Your task to perform on an android device: turn on showing notifications on the lock screen Image 0: 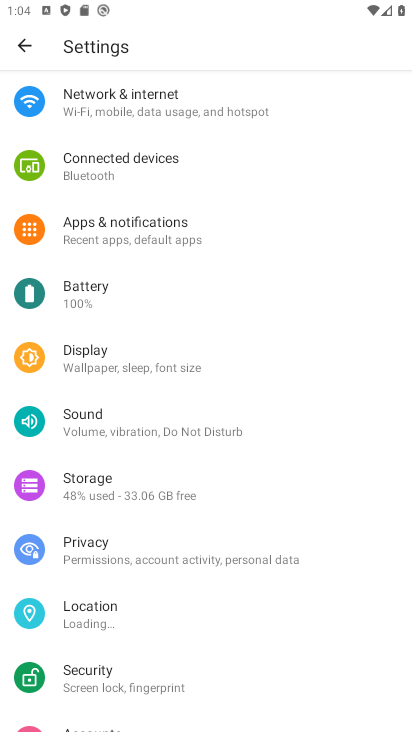
Step 0: press home button
Your task to perform on an android device: turn on showing notifications on the lock screen Image 1: 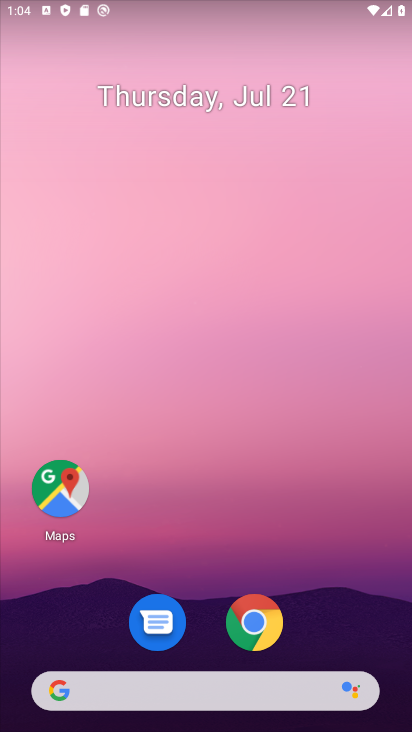
Step 1: drag from (298, 694) to (261, 181)
Your task to perform on an android device: turn on showing notifications on the lock screen Image 2: 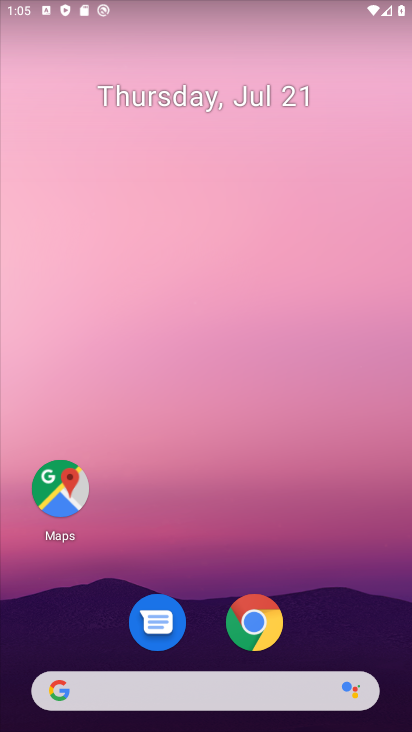
Step 2: drag from (217, 686) to (164, 137)
Your task to perform on an android device: turn on showing notifications on the lock screen Image 3: 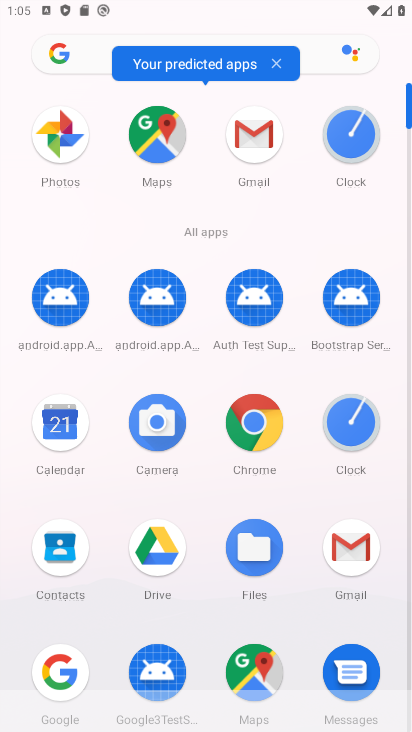
Step 3: drag from (203, 639) to (194, 435)
Your task to perform on an android device: turn on showing notifications on the lock screen Image 4: 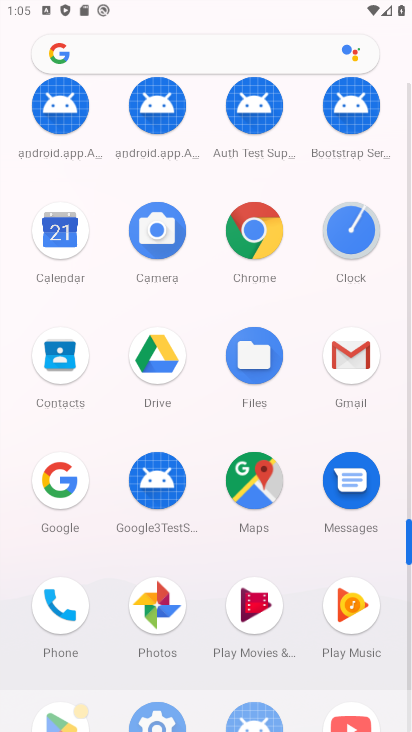
Step 4: drag from (204, 537) to (209, 438)
Your task to perform on an android device: turn on showing notifications on the lock screen Image 5: 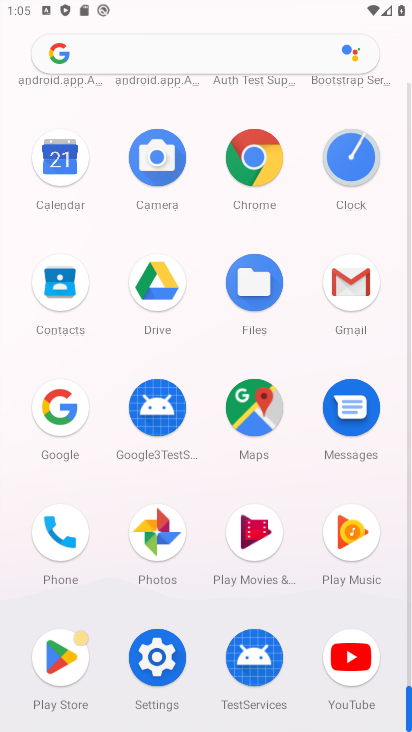
Step 5: click (160, 650)
Your task to perform on an android device: turn on showing notifications on the lock screen Image 6: 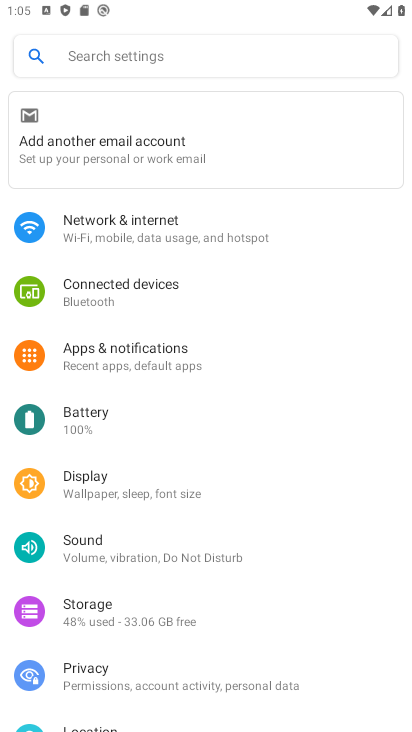
Step 6: click (152, 49)
Your task to perform on an android device: turn on showing notifications on the lock screen Image 7: 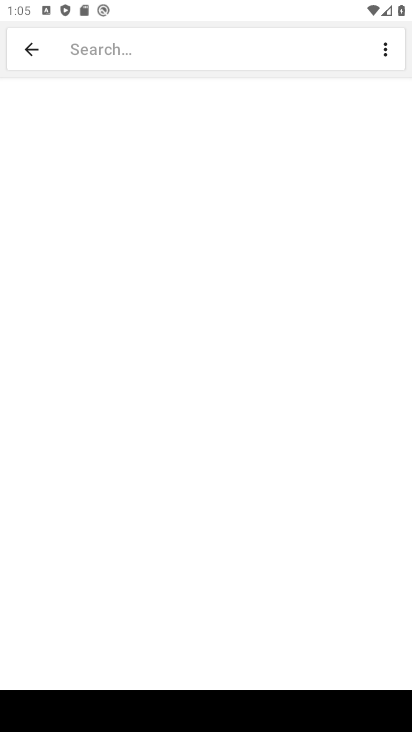
Step 7: drag from (366, 705) to (357, 630)
Your task to perform on an android device: turn on showing notifications on the lock screen Image 8: 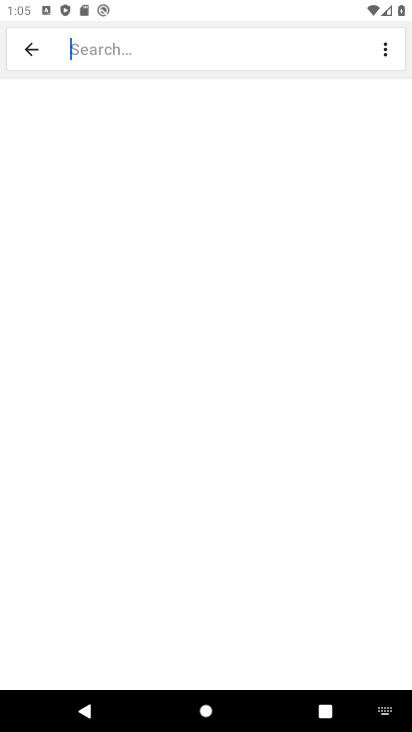
Step 8: click (379, 718)
Your task to perform on an android device: turn on showing notifications on the lock screen Image 9: 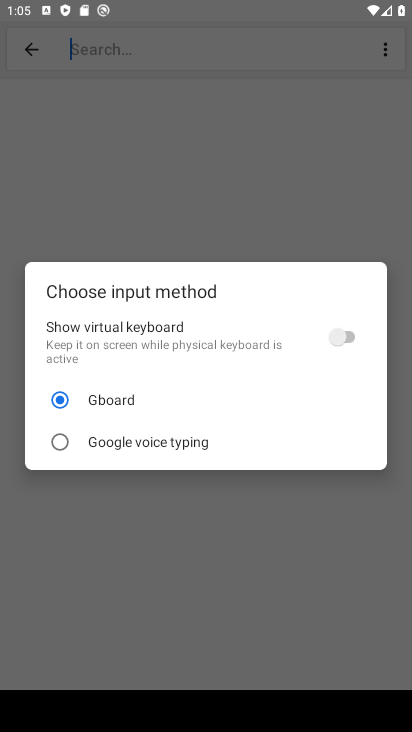
Step 9: click (355, 334)
Your task to perform on an android device: turn on showing notifications on the lock screen Image 10: 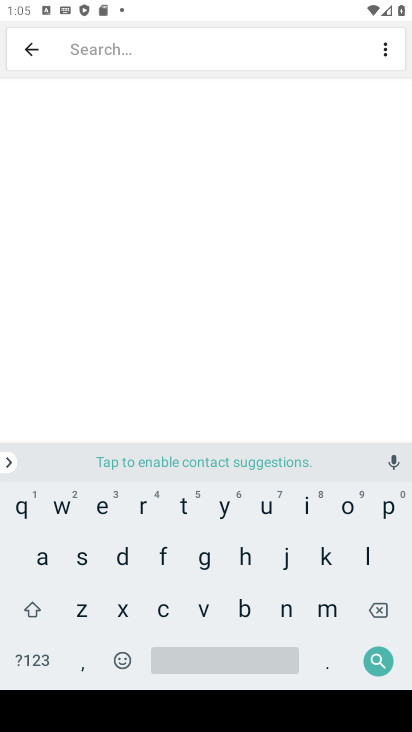
Step 10: click (288, 610)
Your task to perform on an android device: turn on showing notifications on the lock screen Image 11: 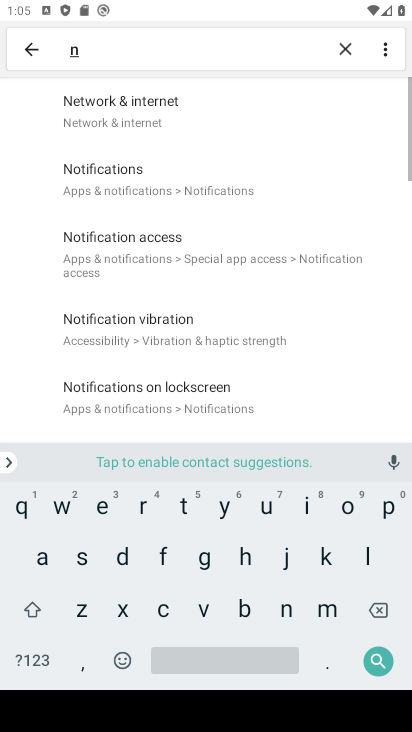
Step 11: click (348, 501)
Your task to perform on an android device: turn on showing notifications on the lock screen Image 12: 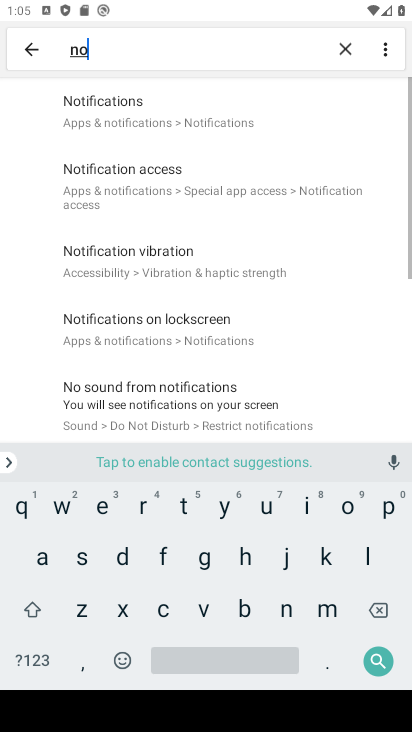
Step 12: click (133, 101)
Your task to perform on an android device: turn on showing notifications on the lock screen Image 13: 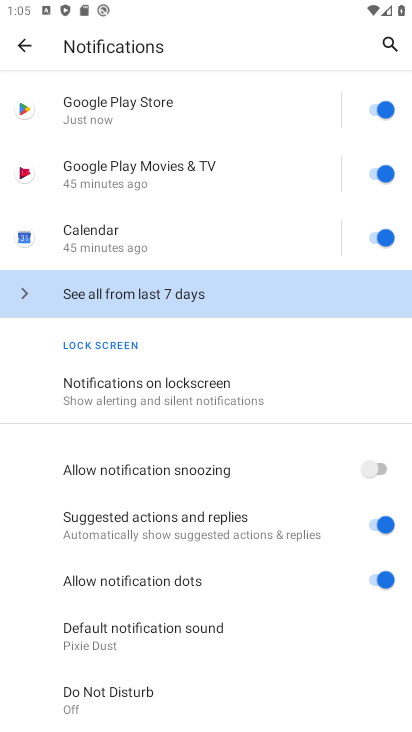
Step 13: click (99, 385)
Your task to perform on an android device: turn on showing notifications on the lock screen Image 14: 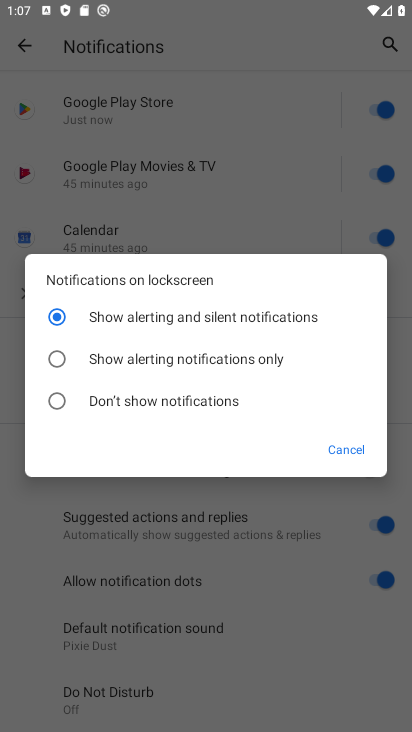
Step 14: task complete